Your task to perform on an android device: move an email to a new category in the gmail app Image 0: 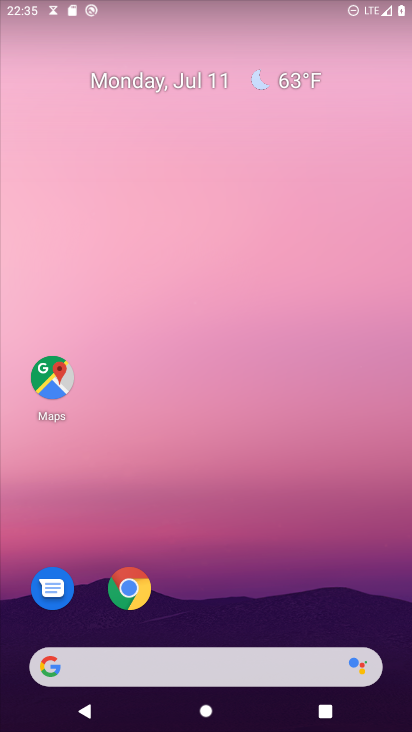
Step 0: drag from (191, 630) to (211, 190)
Your task to perform on an android device: move an email to a new category in the gmail app Image 1: 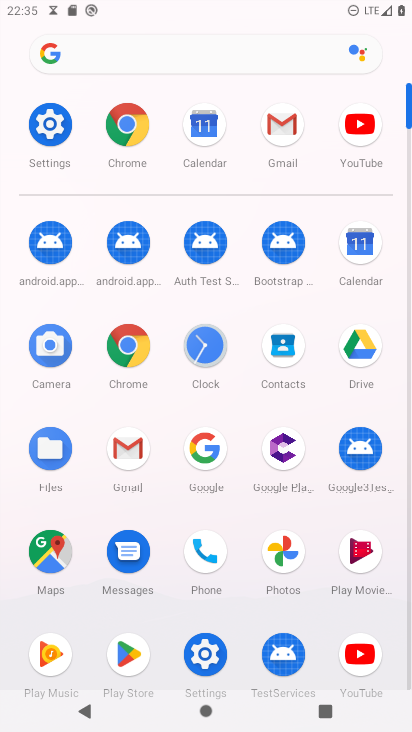
Step 1: click (292, 127)
Your task to perform on an android device: move an email to a new category in the gmail app Image 2: 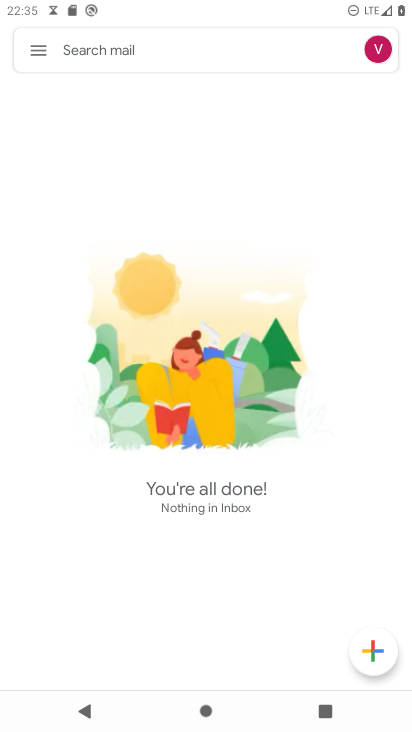
Step 2: click (37, 55)
Your task to perform on an android device: move an email to a new category in the gmail app Image 3: 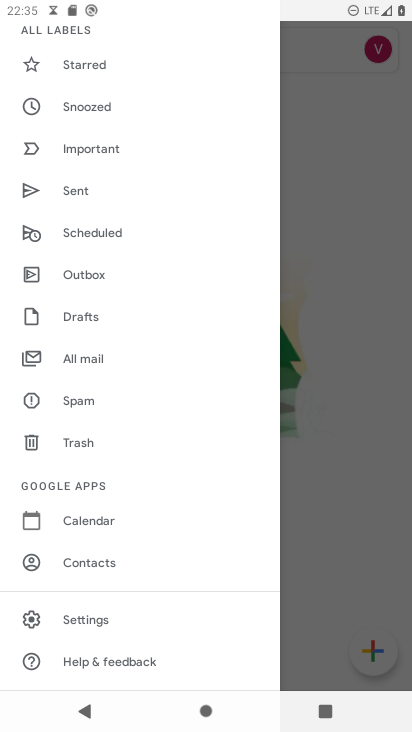
Step 3: click (56, 359)
Your task to perform on an android device: move an email to a new category in the gmail app Image 4: 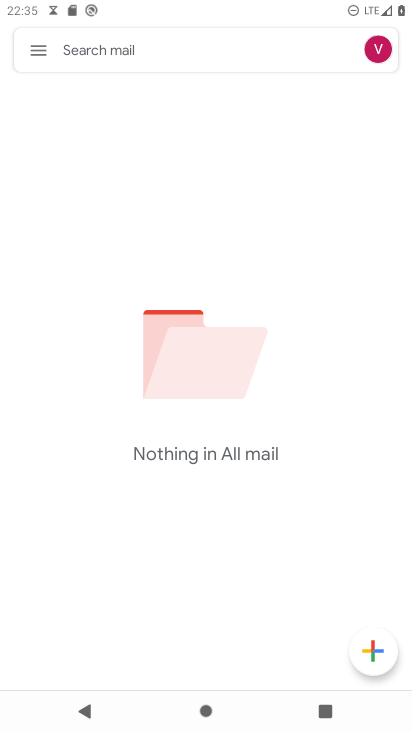
Step 4: task complete